Your task to perform on an android device: Open the Play Movies app and select the watchlist tab. Image 0: 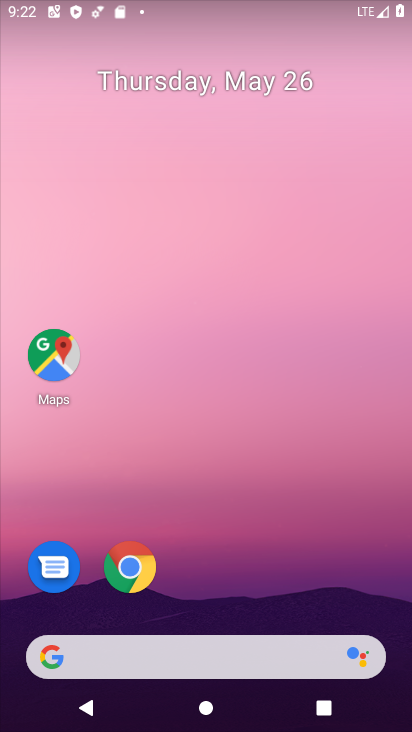
Step 0: drag from (280, 716) to (290, 31)
Your task to perform on an android device: Open the Play Movies app and select the watchlist tab. Image 1: 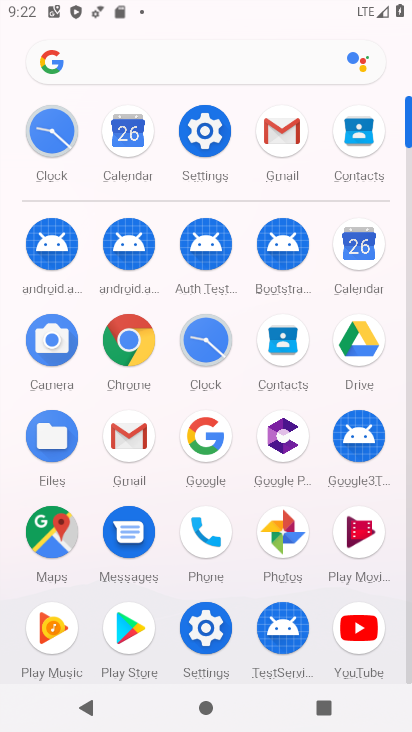
Step 1: click (352, 525)
Your task to perform on an android device: Open the Play Movies app and select the watchlist tab. Image 2: 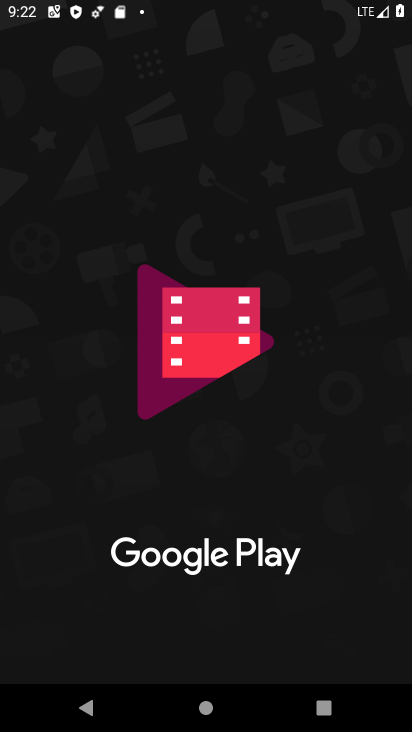
Step 2: drag from (316, 641) to (237, 40)
Your task to perform on an android device: Open the Play Movies app and select the watchlist tab. Image 3: 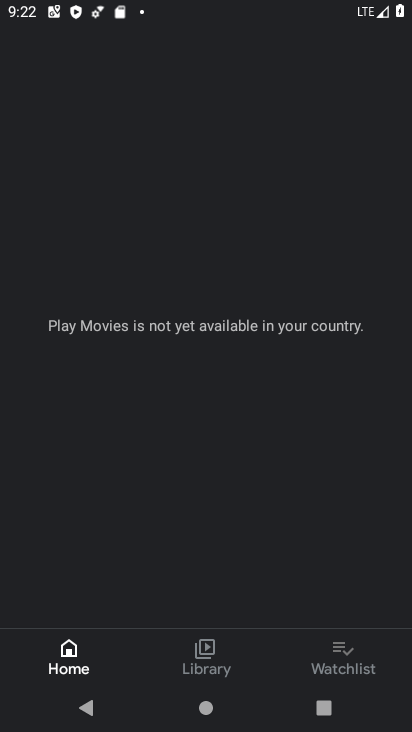
Step 3: click (338, 650)
Your task to perform on an android device: Open the Play Movies app and select the watchlist tab. Image 4: 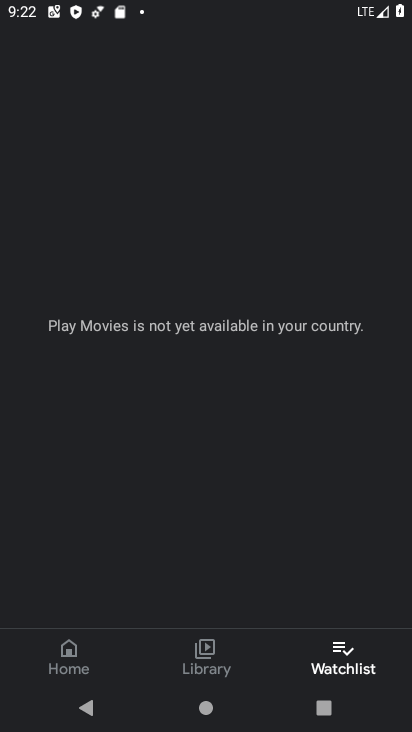
Step 4: task complete